Your task to perform on an android device: open the mobile data screen to see how much data has been used Image 0: 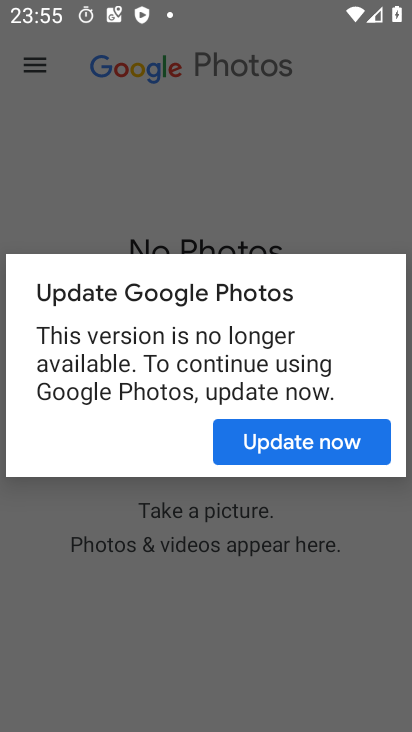
Step 0: press home button
Your task to perform on an android device: open the mobile data screen to see how much data has been used Image 1: 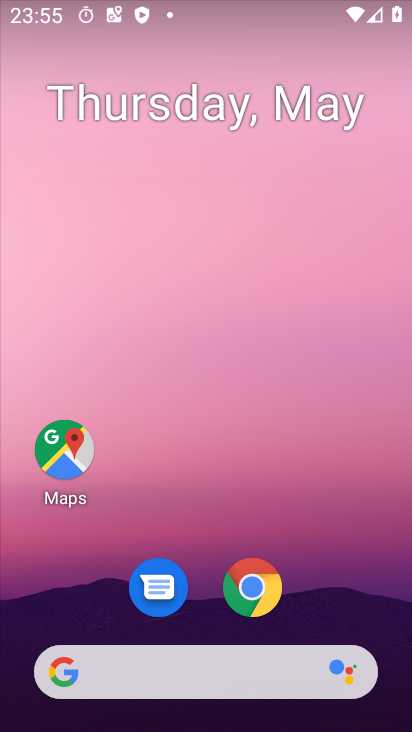
Step 1: drag from (359, 622) to (394, 212)
Your task to perform on an android device: open the mobile data screen to see how much data has been used Image 2: 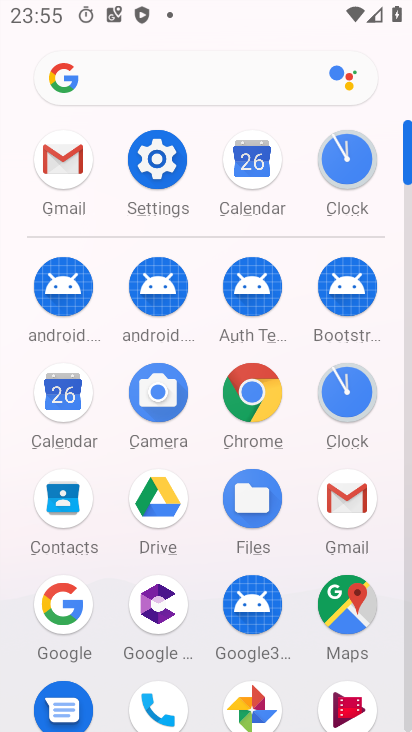
Step 2: click (156, 164)
Your task to perform on an android device: open the mobile data screen to see how much data has been used Image 3: 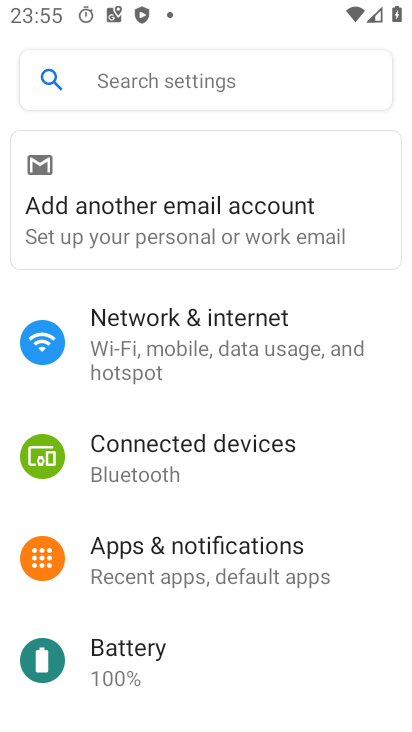
Step 3: click (203, 344)
Your task to perform on an android device: open the mobile data screen to see how much data has been used Image 4: 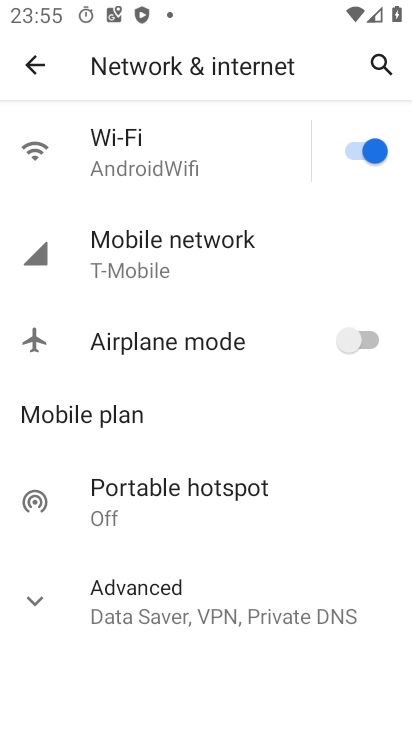
Step 4: click (143, 277)
Your task to perform on an android device: open the mobile data screen to see how much data has been used Image 5: 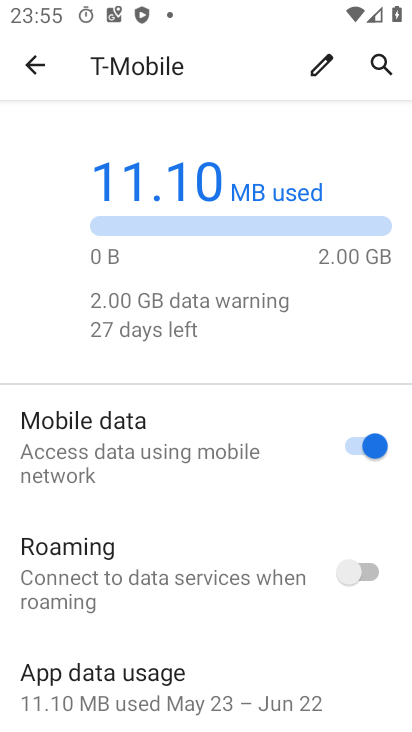
Step 5: drag from (169, 572) to (175, 155)
Your task to perform on an android device: open the mobile data screen to see how much data has been used Image 6: 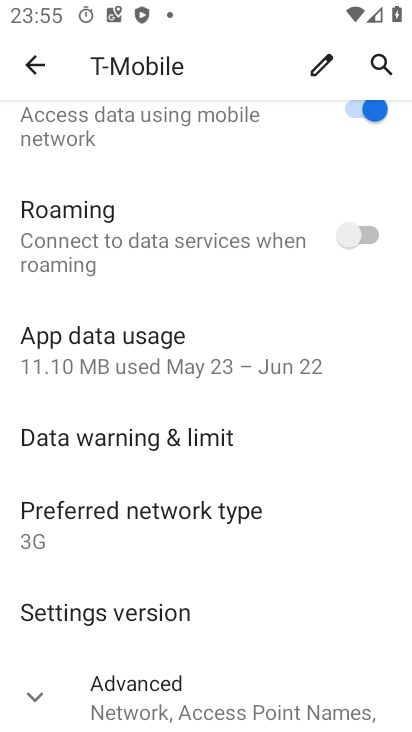
Step 6: click (177, 357)
Your task to perform on an android device: open the mobile data screen to see how much data has been used Image 7: 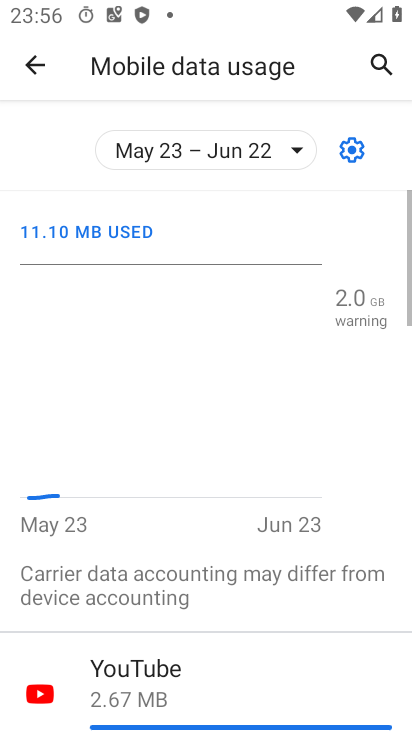
Step 7: task complete